Your task to perform on an android device: Open display settings Image 0: 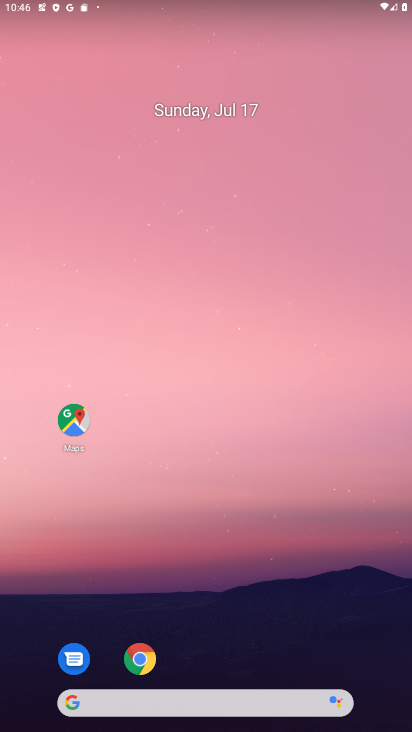
Step 0: drag from (181, 644) to (264, 137)
Your task to perform on an android device: Open display settings Image 1: 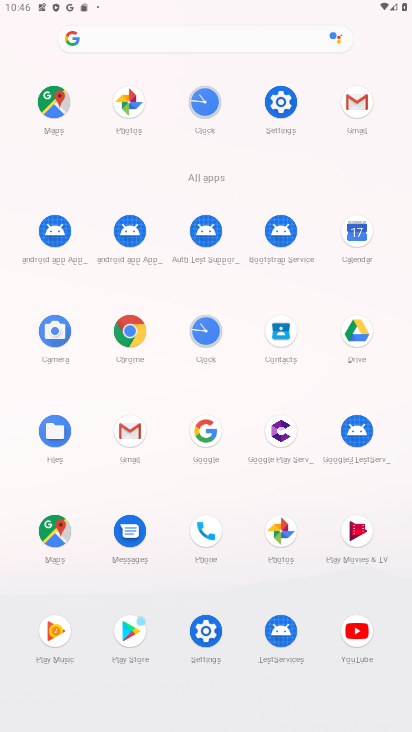
Step 1: click (284, 114)
Your task to perform on an android device: Open display settings Image 2: 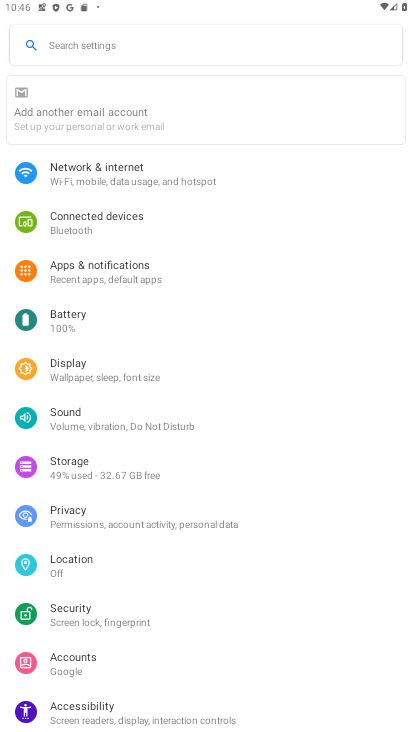
Step 2: click (115, 362)
Your task to perform on an android device: Open display settings Image 3: 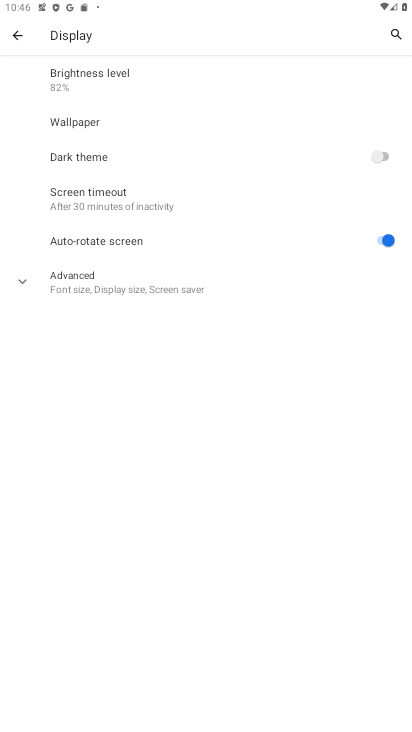
Step 3: task complete